Your task to perform on an android device: Search for "logitech g pro" on amazon.com, select the first entry, and add it to the cart. Image 0: 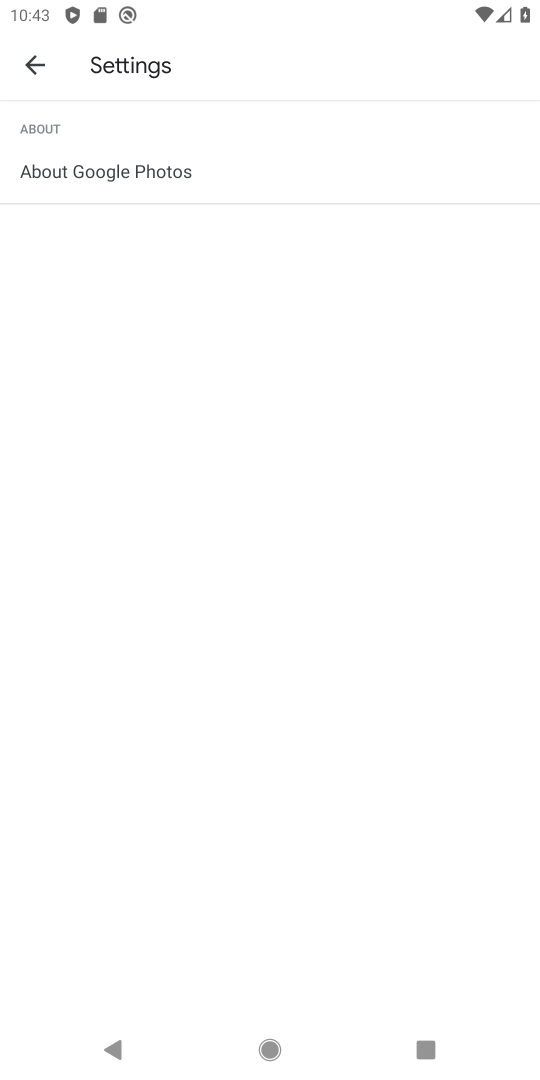
Step 0: press home button
Your task to perform on an android device: Search for "logitech g pro" on amazon.com, select the first entry, and add it to the cart. Image 1: 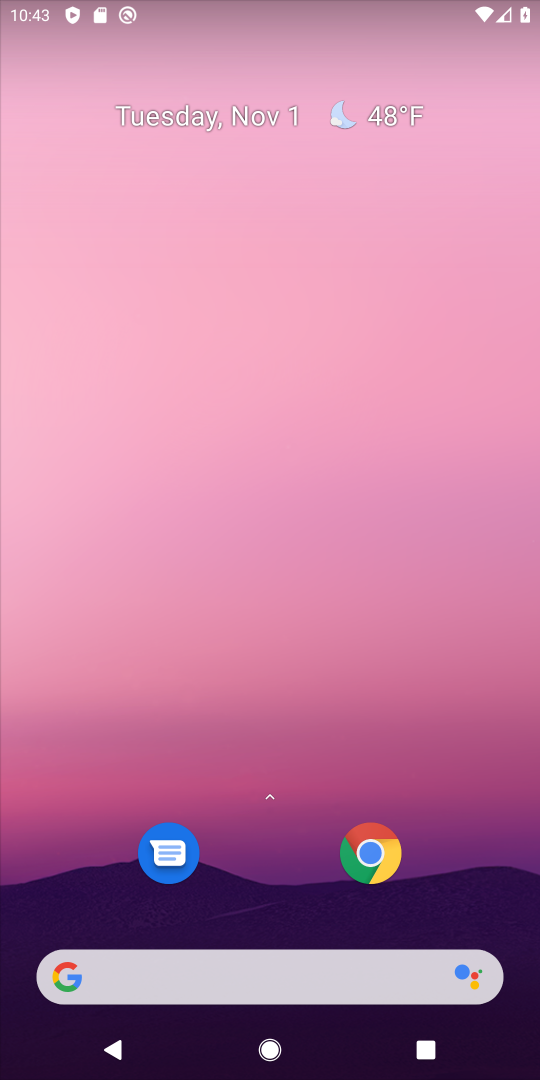
Step 1: drag from (336, 917) to (386, 81)
Your task to perform on an android device: Search for "logitech g pro" on amazon.com, select the first entry, and add it to the cart. Image 2: 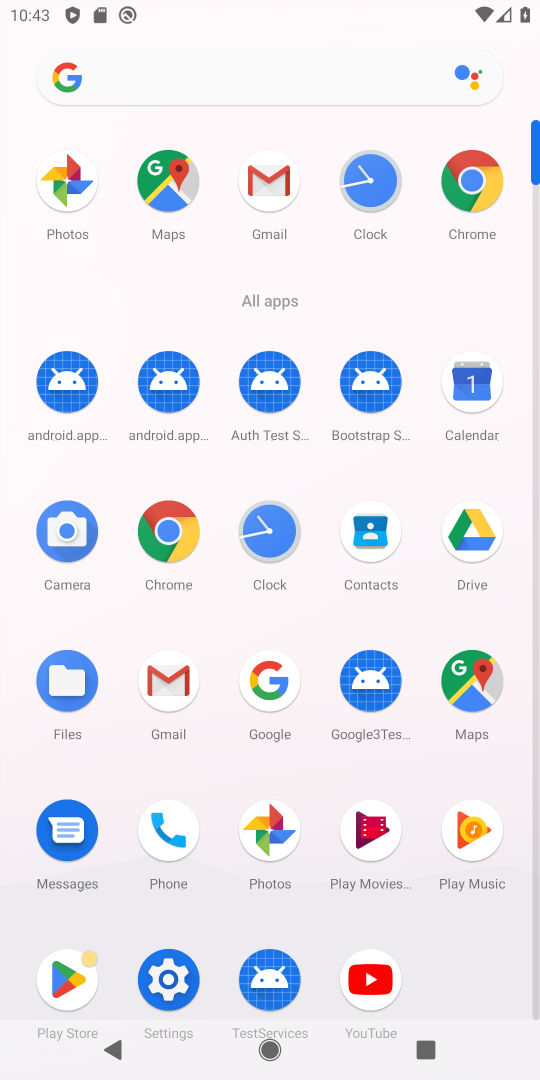
Step 2: click (176, 537)
Your task to perform on an android device: Search for "logitech g pro" on amazon.com, select the first entry, and add it to the cart. Image 3: 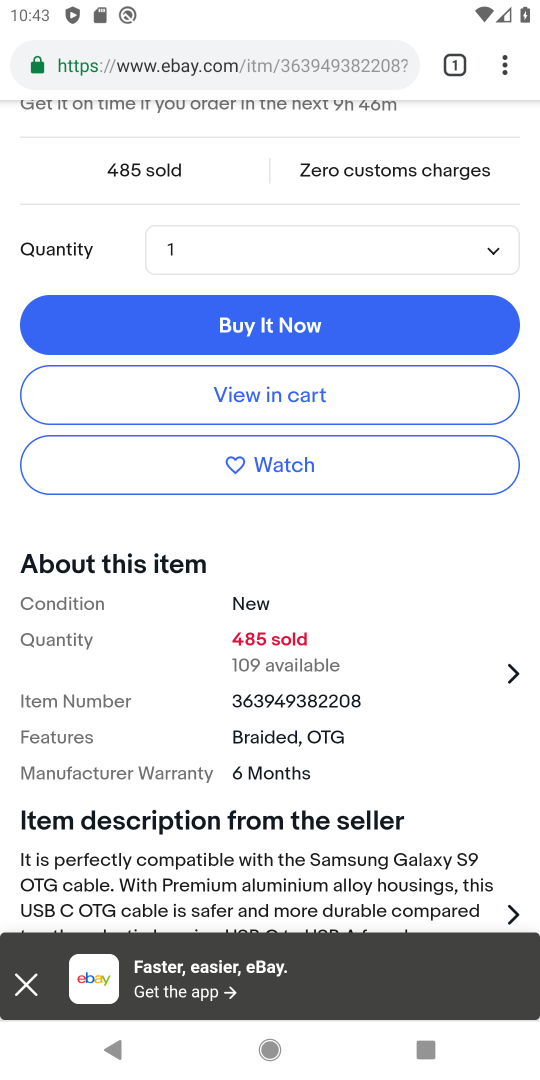
Step 3: click (302, 67)
Your task to perform on an android device: Search for "logitech g pro" on amazon.com, select the first entry, and add it to the cart. Image 4: 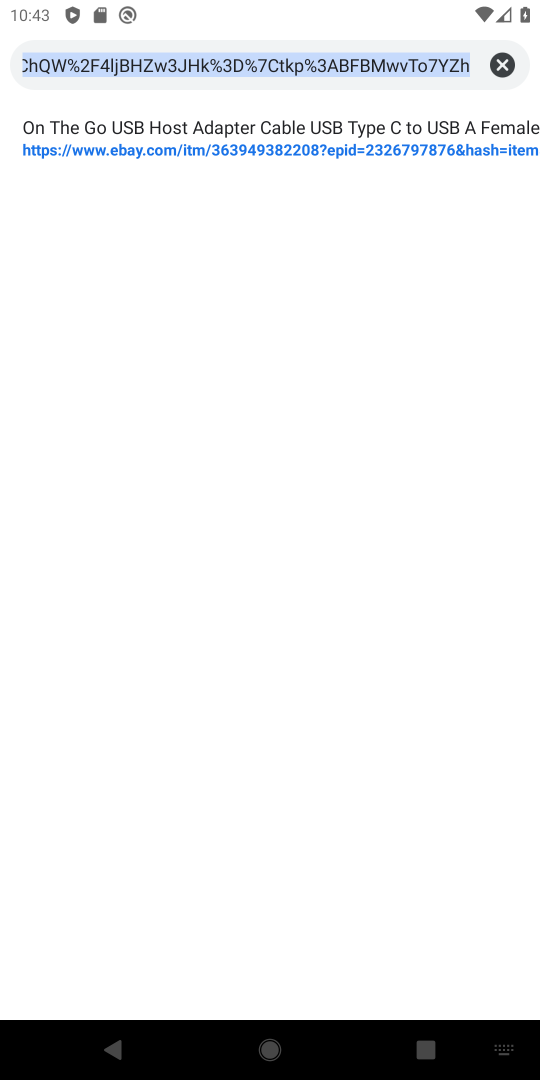
Step 4: click (498, 51)
Your task to perform on an android device: Search for "logitech g pro" on amazon.com, select the first entry, and add it to the cart. Image 5: 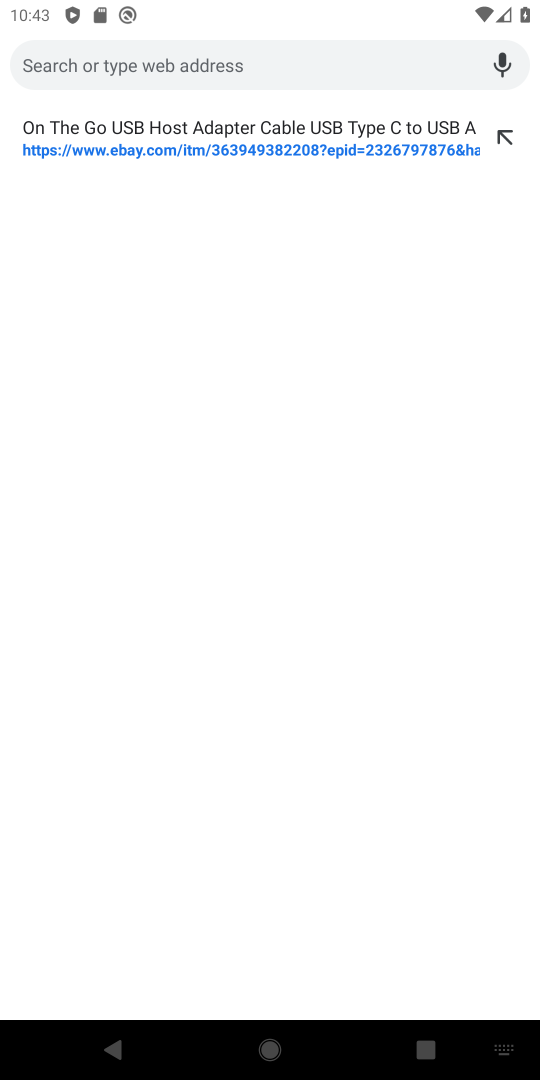
Step 5: type "amazon.com"
Your task to perform on an android device: Search for "logitech g pro" on amazon.com, select the first entry, and add it to the cart. Image 6: 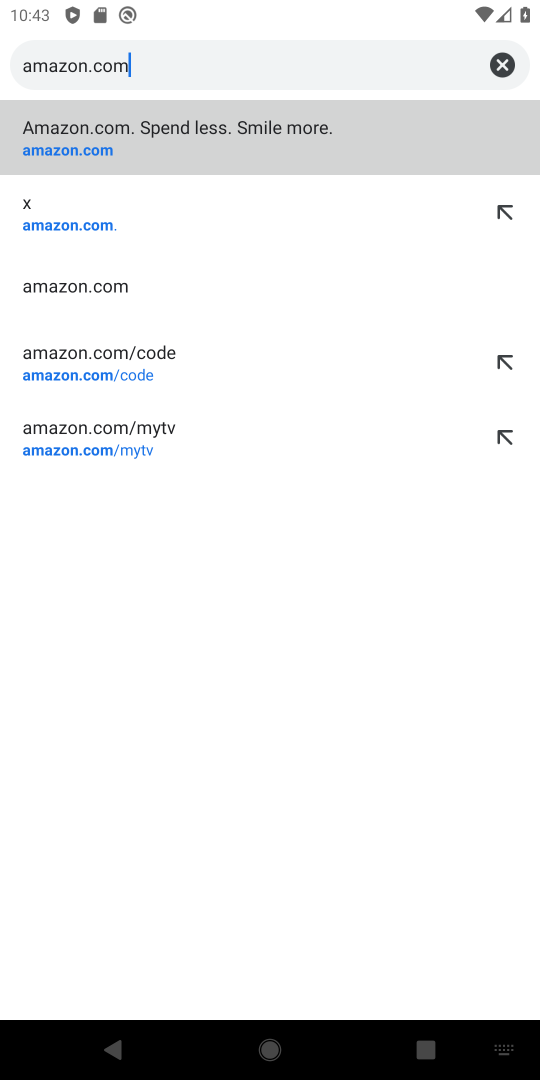
Step 6: type ""
Your task to perform on an android device: Search for "logitech g pro" on amazon.com, select the first entry, and add it to the cart. Image 7: 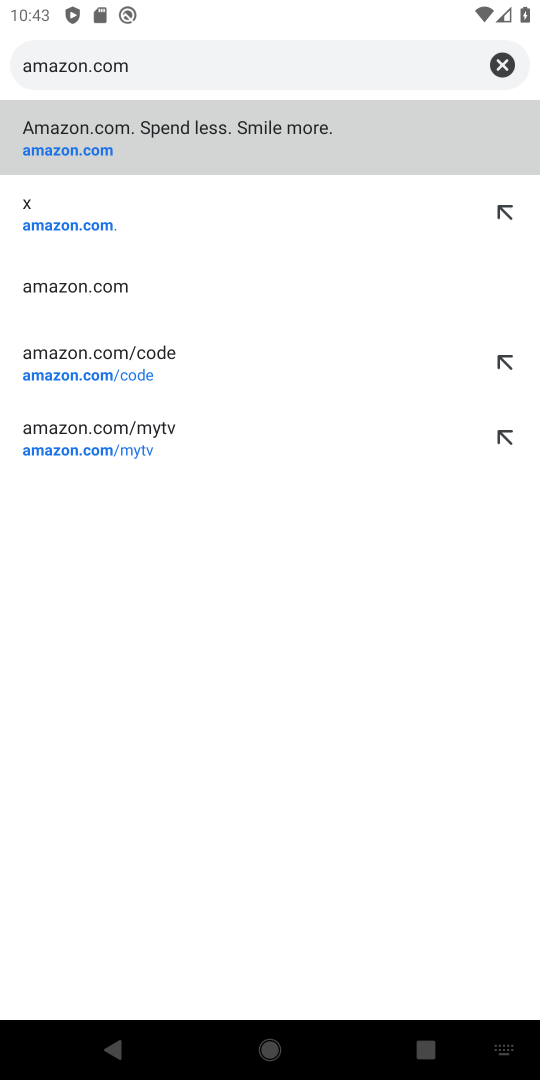
Step 7: click (76, 153)
Your task to perform on an android device: Search for "logitech g pro" on amazon.com, select the first entry, and add it to the cart. Image 8: 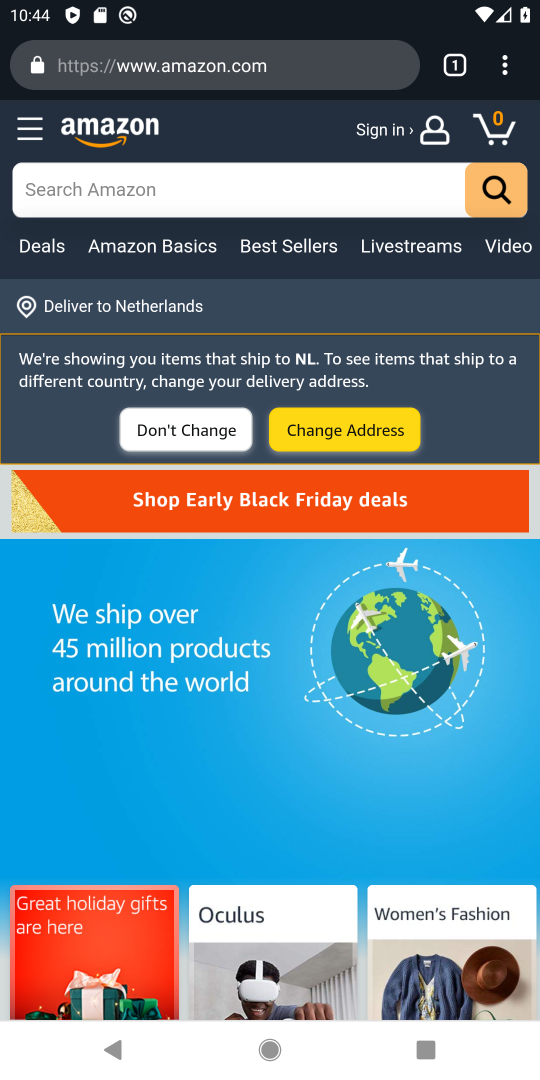
Step 8: click (190, 183)
Your task to perform on an android device: Search for "logitech g pro" on amazon.com, select the first entry, and add it to the cart. Image 9: 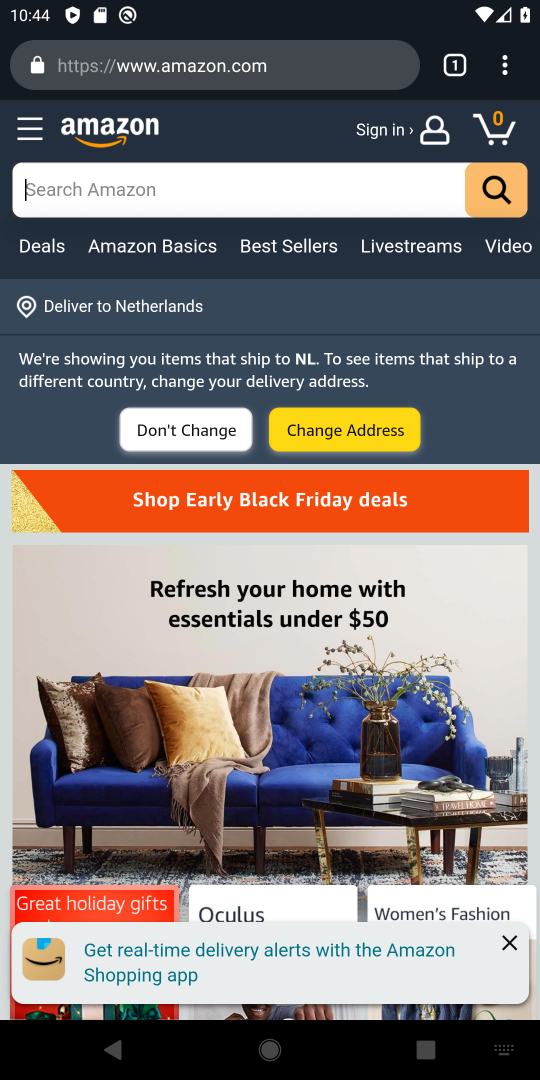
Step 9: type "logitech g pro"
Your task to perform on an android device: Search for "logitech g pro" on amazon.com, select the first entry, and add it to the cart. Image 10: 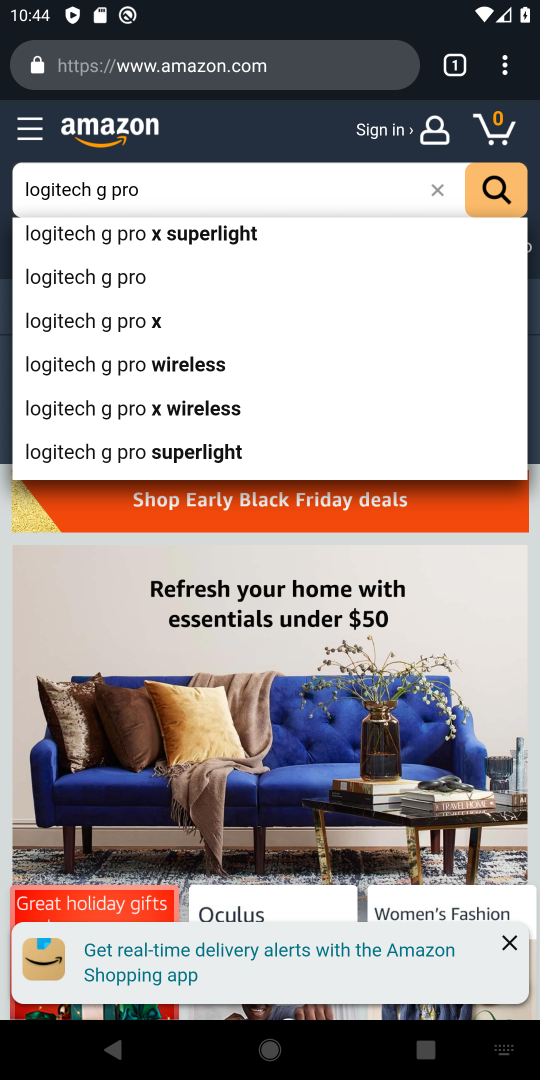
Step 10: click (106, 278)
Your task to perform on an android device: Search for "logitech g pro" on amazon.com, select the first entry, and add it to the cart. Image 11: 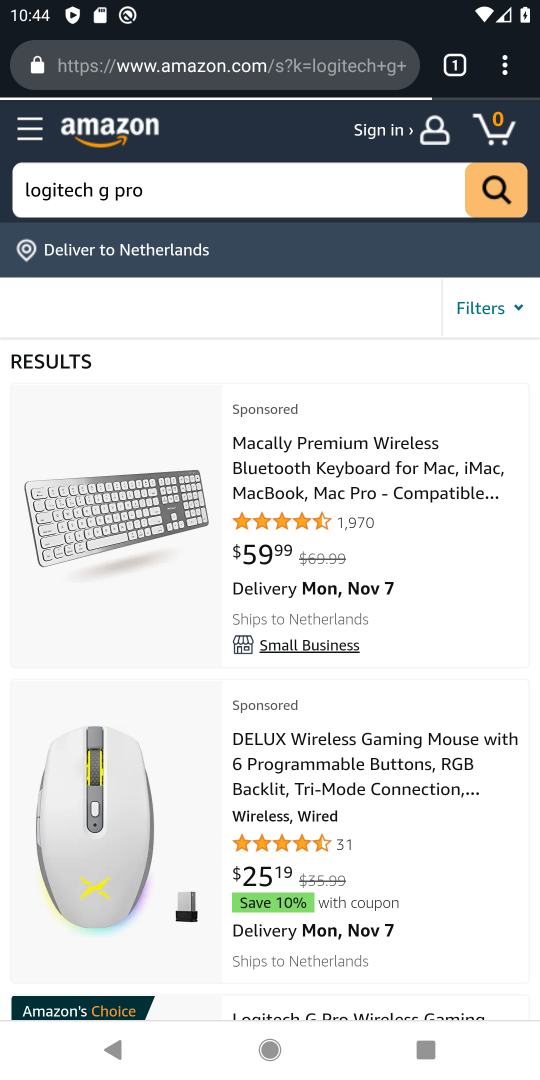
Step 11: click (261, 467)
Your task to perform on an android device: Search for "logitech g pro" on amazon.com, select the first entry, and add it to the cart. Image 12: 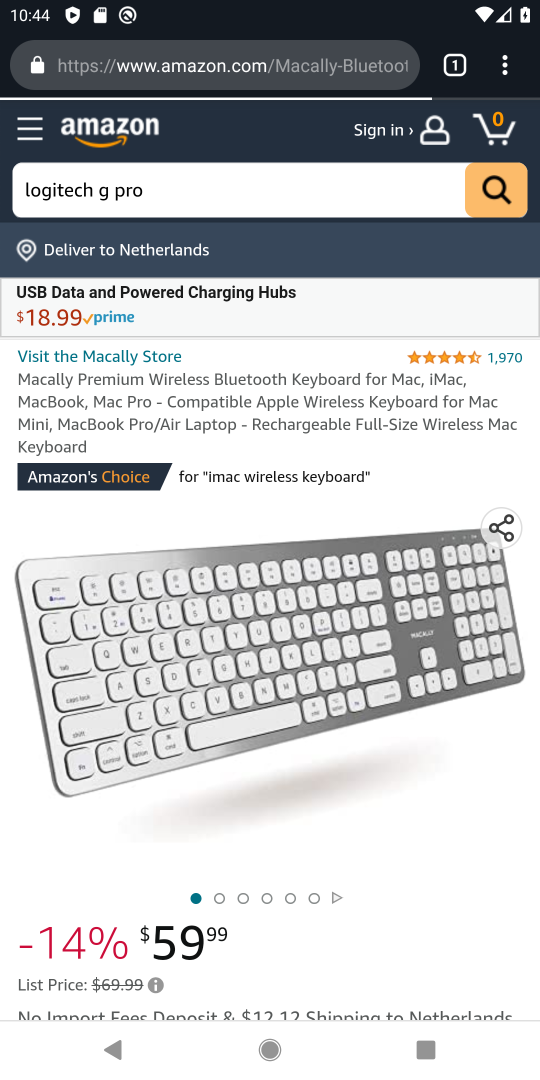
Step 12: drag from (273, 869) to (340, 518)
Your task to perform on an android device: Search for "logitech g pro" on amazon.com, select the first entry, and add it to the cart. Image 13: 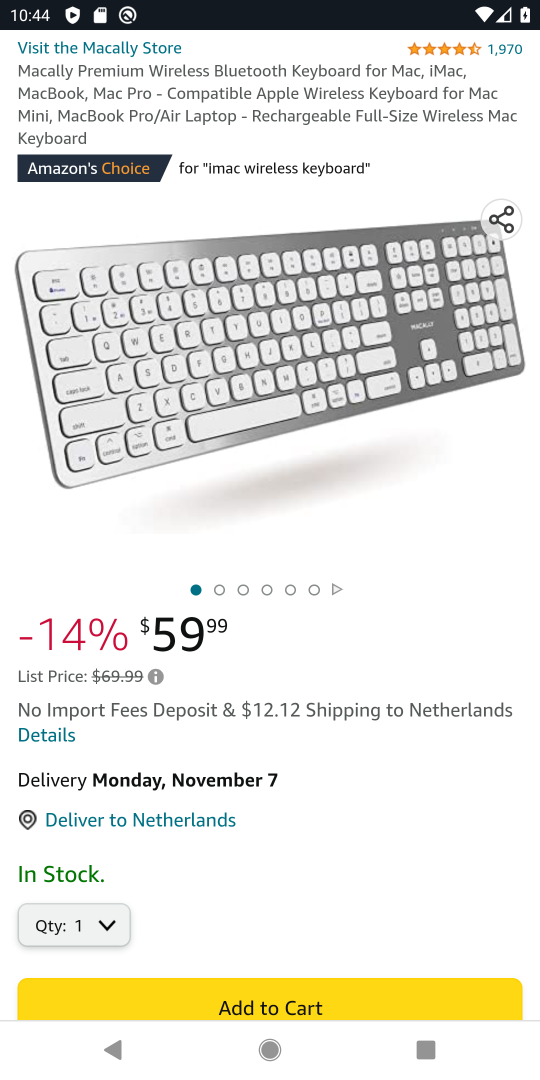
Step 13: drag from (265, 858) to (315, 507)
Your task to perform on an android device: Search for "logitech g pro" on amazon.com, select the first entry, and add it to the cart. Image 14: 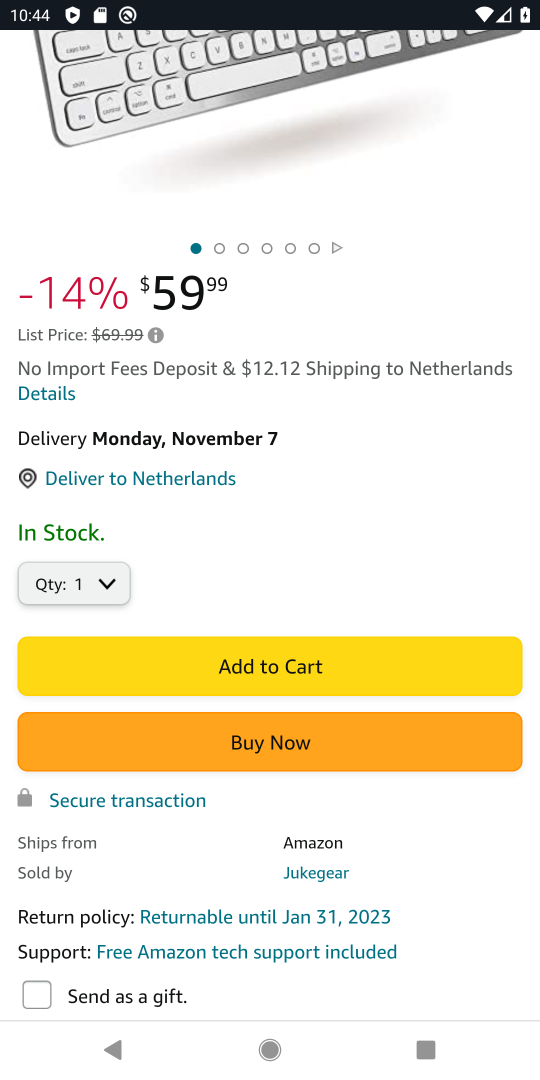
Step 14: click (277, 658)
Your task to perform on an android device: Search for "logitech g pro" on amazon.com, select the first entry, and add it to the cart. Image 15: 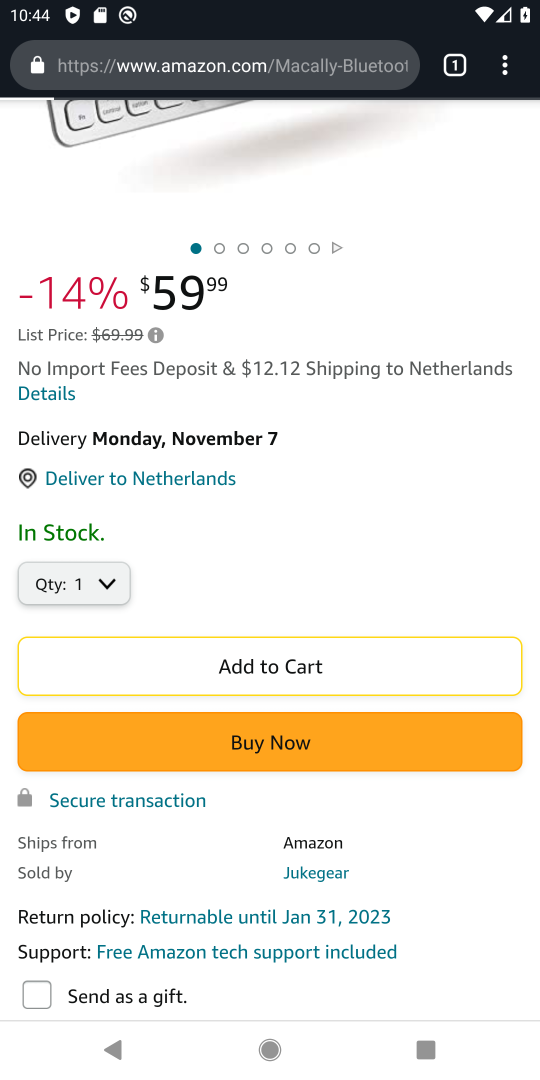
Step 15: task complete